Your task to perform on an android device: Search for Italian restaurants on Maps Image 0: 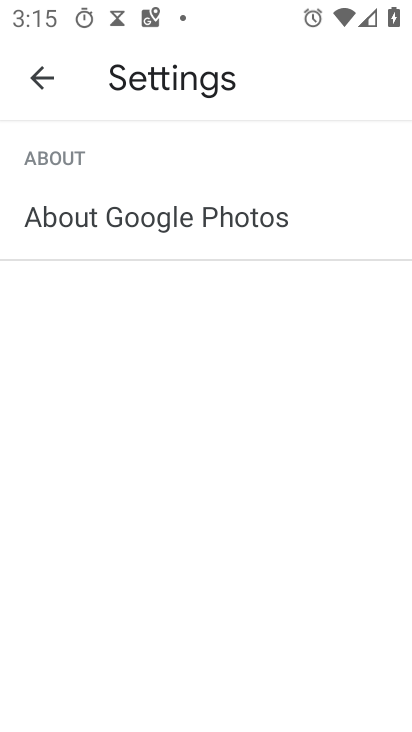
Step 0: press back button
Your task to perform on an android device: Search for Italian restaurants on Maps Image 1: 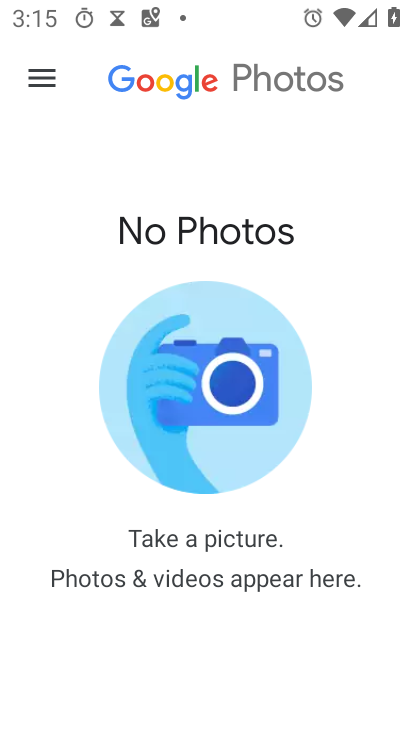
Step 1: press back button
Your task to perform on an android device: Search for Italian restaurants on Maps Image 2: 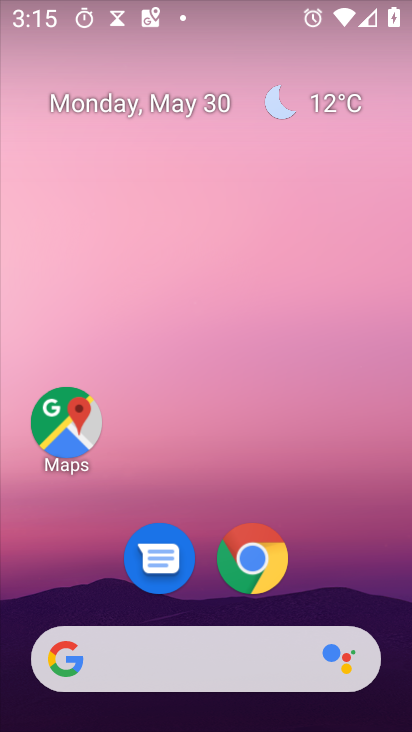
Step 2: click (33, 425)
Your task to perform on an android device: Search for Italian restaurants on Maps Image 3: 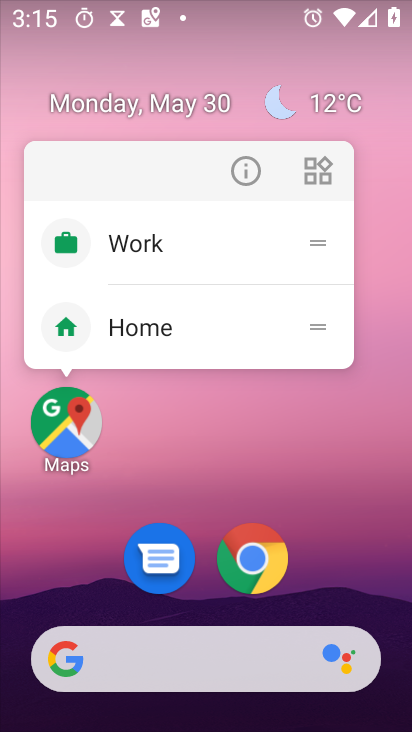
Step 3: click (57, 421)
Your task to perform on an android device: Search for Italian restaurants on Maps Image 4: 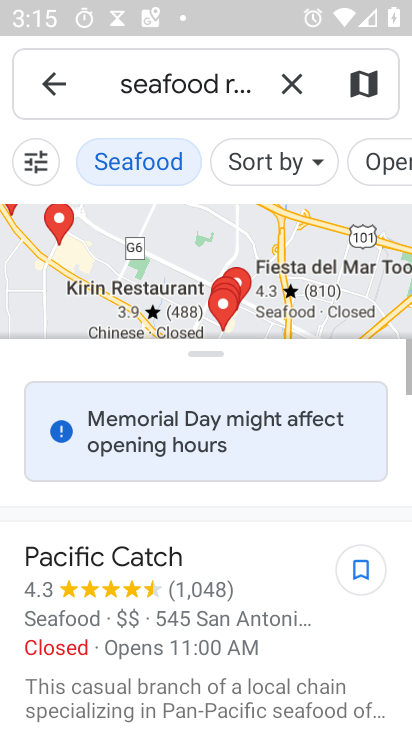
Step 4: click (288, 76)
Your task to perform on an android device: Search for Italian restaurants on Maps Image 5: 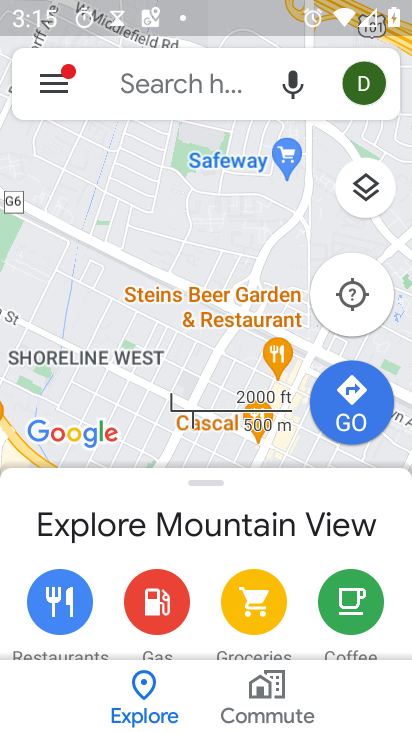
Step 5: click (158, 84)
Your task to perform on an android device: Search for Italian restaurants on Maps Image 6: 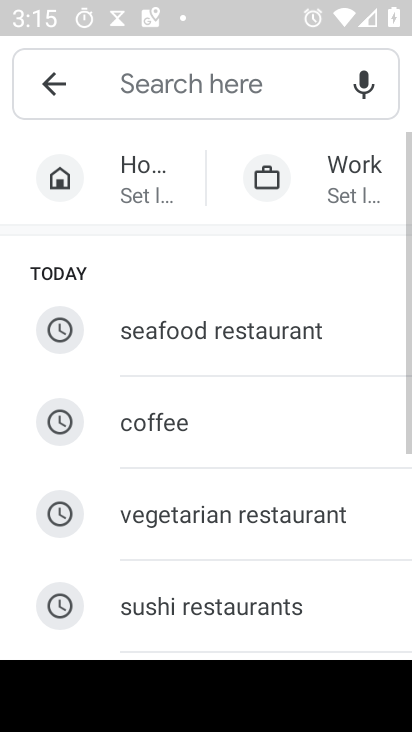
Step 6: drag from (191, 564) to (281, 160)
Your task to perform on an android device: Search for Italian restaurants on Maps Image 7: 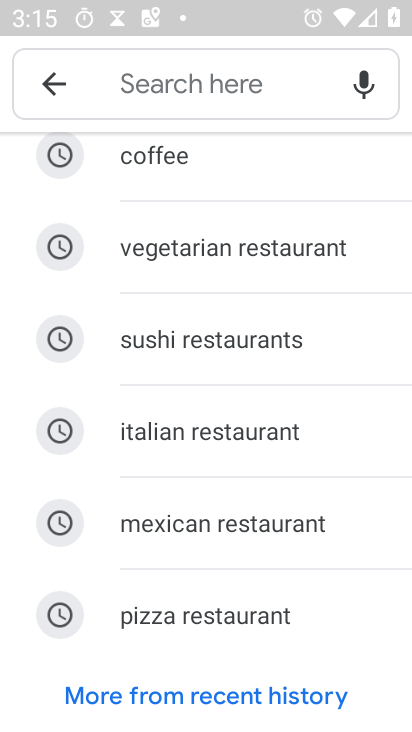
Step 7: click (167, 441)
Your task to perform on an android device: Search for Italian restaurants on Maps Image 8: 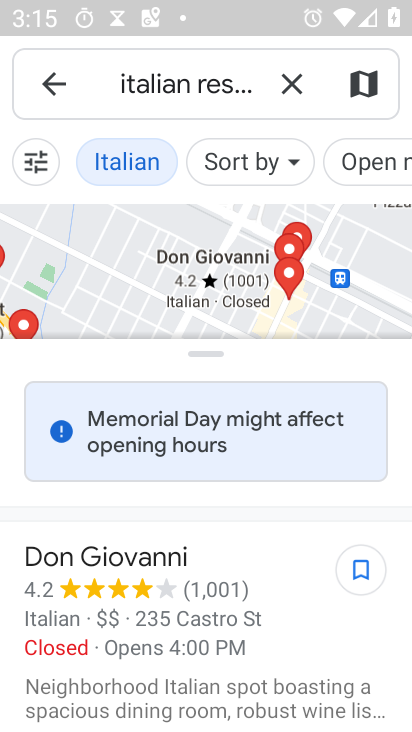
Step 8: task complete